Your task to perform on an android device: open chrome and create a bookmark for the current page Image 0: 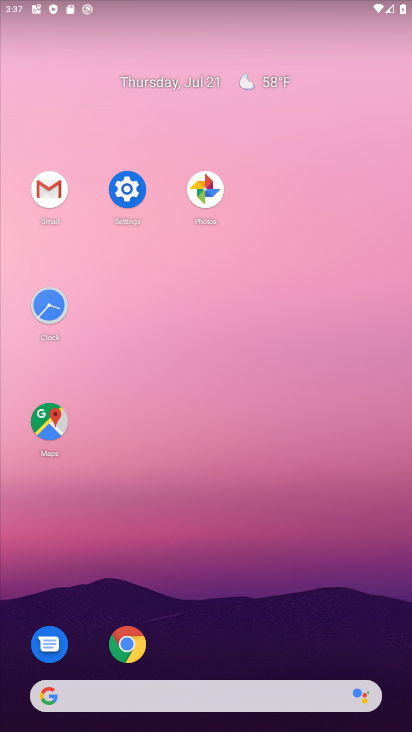
Step 0: click (120, 637)
Your task to perform on an android device: open chrome and create a bookmark for the current page Image 1: 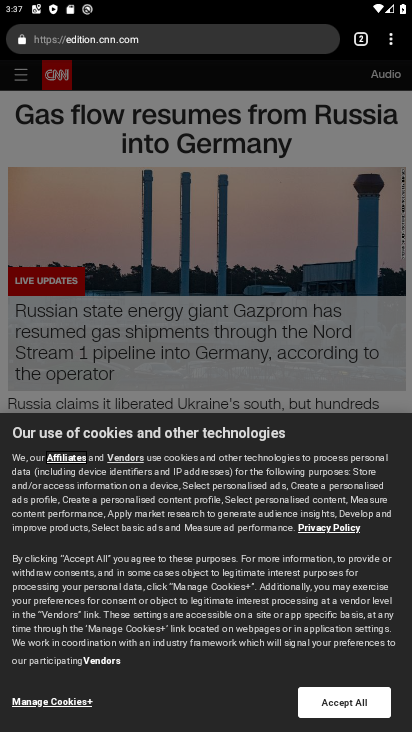
Step 1: click (394, 41)
Your task to perform on an android device: open chrome and create a bookmark for the current page Image 2: 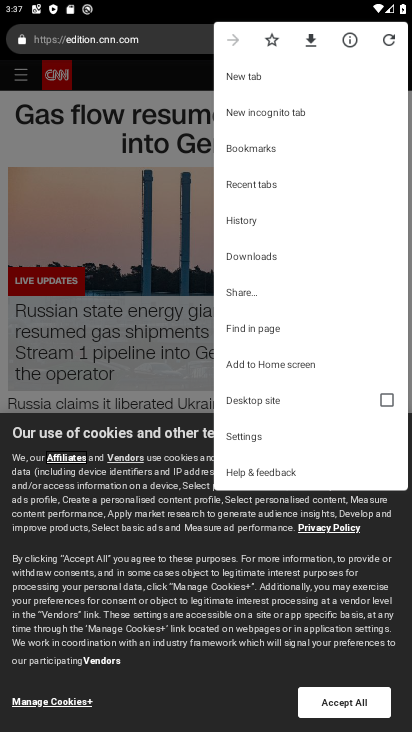
Step 2: click (267, 32)
Your task to perform on an android device: open chrome and create a bookmark for the current page Image 3: 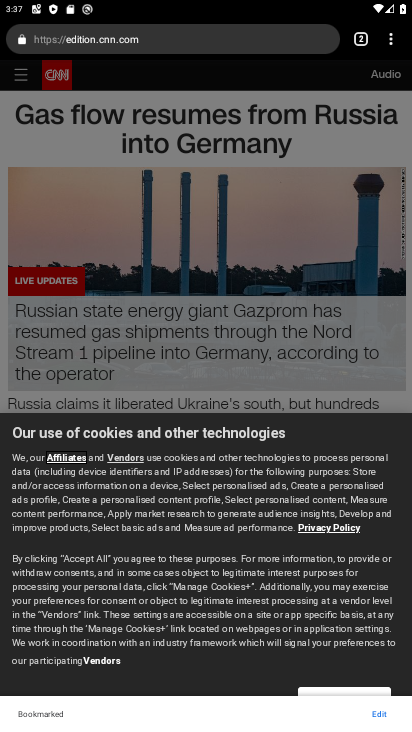
Step 3: task complete